Your task to perform on an android device: Open calendar and show me the second week of next month Image 0: 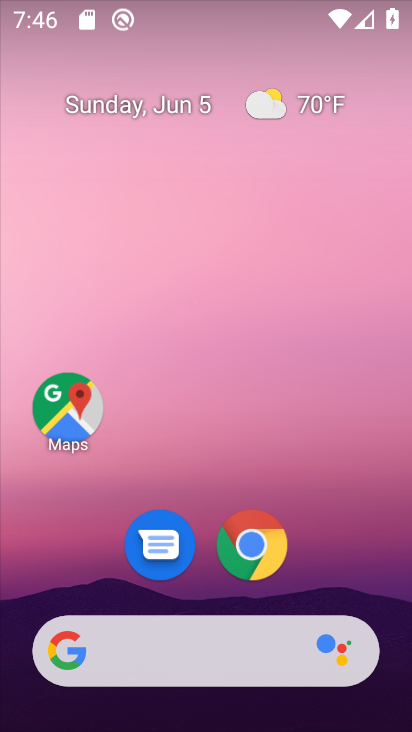
Step 0: drag from (231, 599) to (195, 82)
Your task to perform on an android device: Open calendar and show me the second week of next month Image 1: 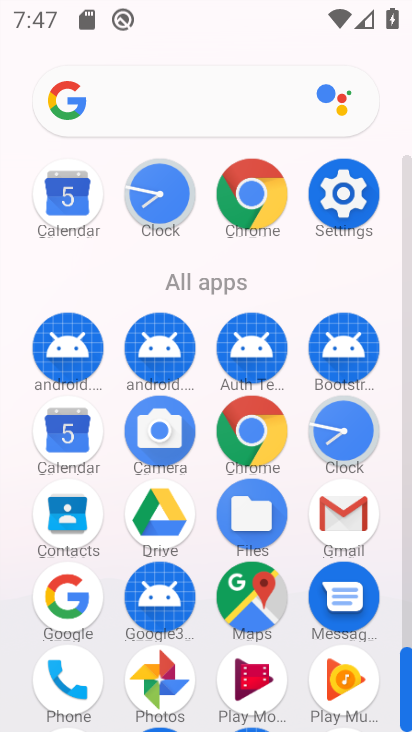
Step 1: click (82, 453)
Your task to perform on an android device: Open calendar and show me the second week of next month Image 2: 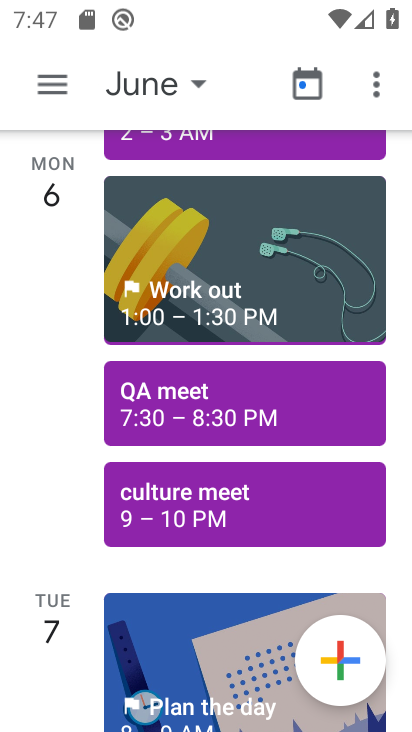
Step 2: click (172, 82)
Your task to perform on an android device: Open calendar and show me the second week of next month Image 3: 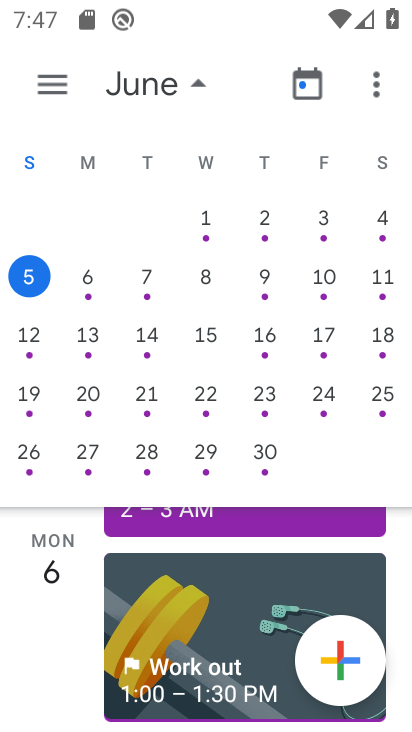
Step 3: drag from (338, 389) to (10, 324)
Your task to perform on an android device: Open calendar and show me the second week of next month Image 4: 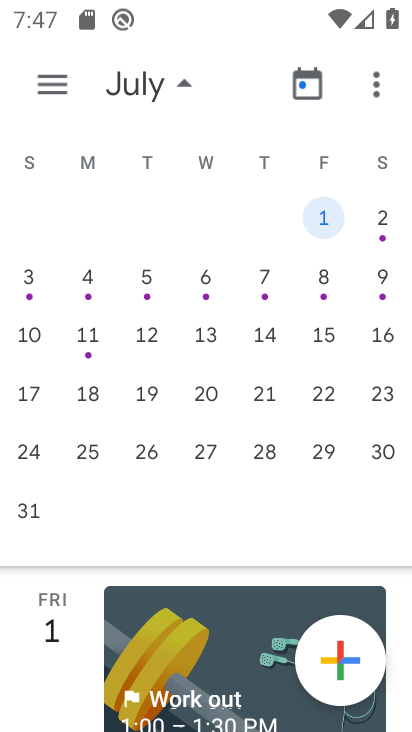
Step 4: drag from (155, 379) to (109, 370)
Your task to perform on an android device: Open calendar and show me the second week of next month Image 5: 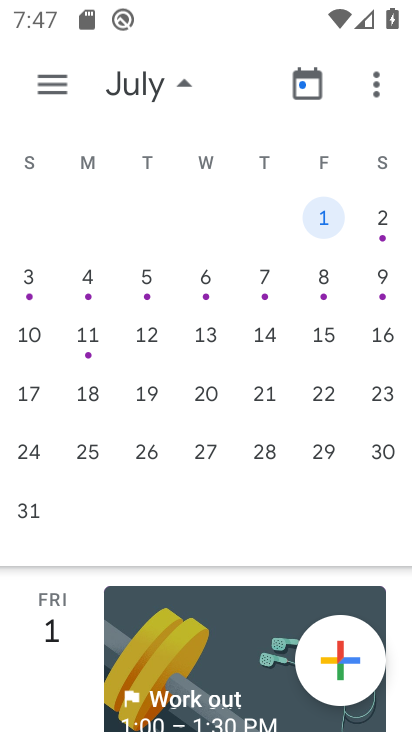
Step 5: click (37, 290)
Your task to perform on an android device: Open calendar and show me the second week of next month Image 6: 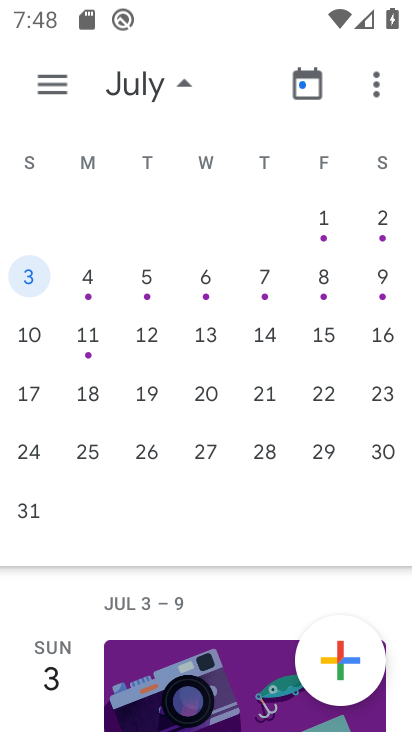
Step 6: task complete